Your task to perform on an android device: Show me my notifications Image 0: 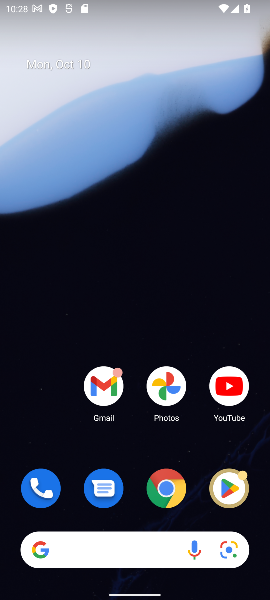
Step 0: drag from (128, 525) to (110, 3)
Your task to perform on an android device: Show me my notifications Image 1: 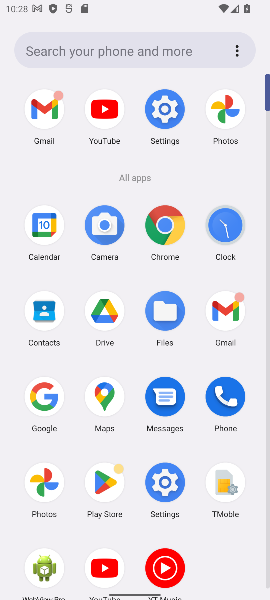
Step 1: click (173, 483)
Your task to perform on an android device: Show me my notifications Image 2: 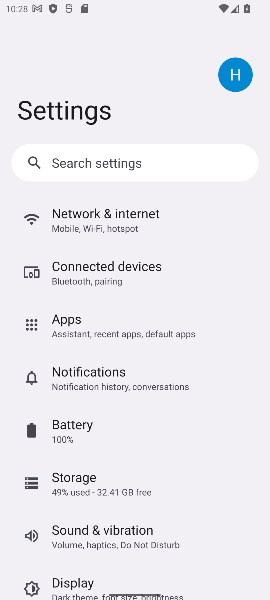
Step 2: click (68, 382)
Your task to perform on an android device: Show me my notifications Image 3: 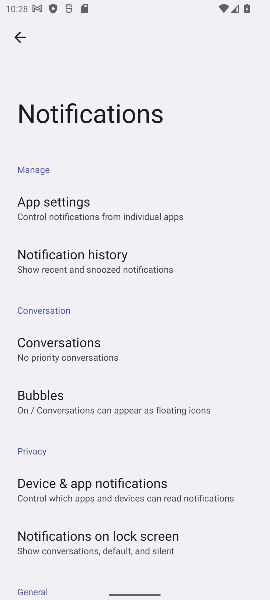
Step 3: task complete